Your task to perform on an android device: Open wifi settings Image 0: 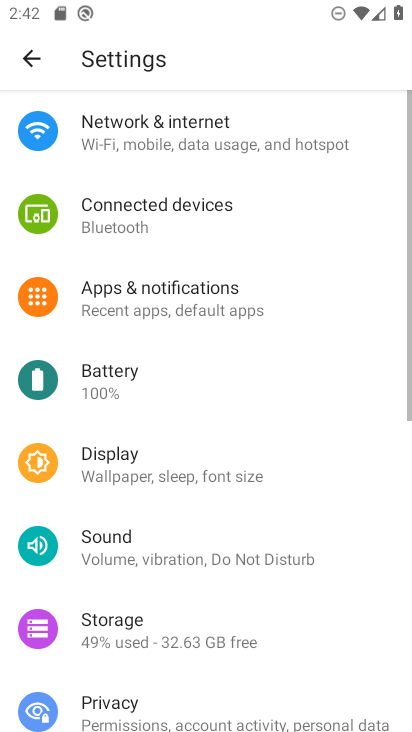
Step 0: click (187, 128)
Your task to perform on an android device: Open wifi settings Image 1: 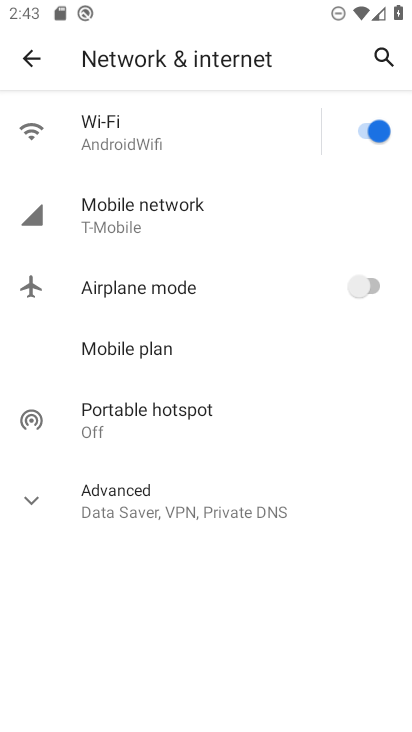
Step 1: task complete